Your task to perform on an android device: turn on notifications settings in the gmail app Image 0: 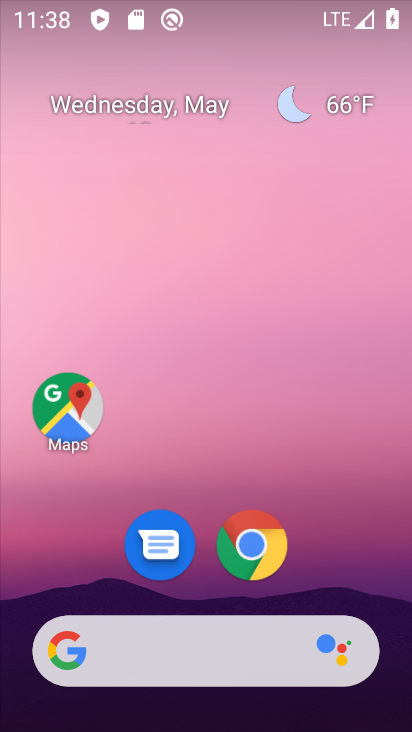
Step 0: drag from (116, 652) to (203, 9)
Your task to perform on an android device: turn on notifications settings in the gmail app Image 1: 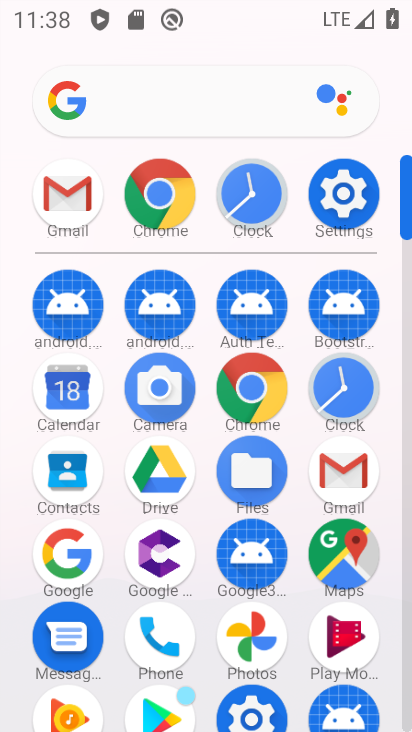
Step 1: click (74, 211)
Your task to perform on an android device: turn on notifications settings in the gmail app Image 2: 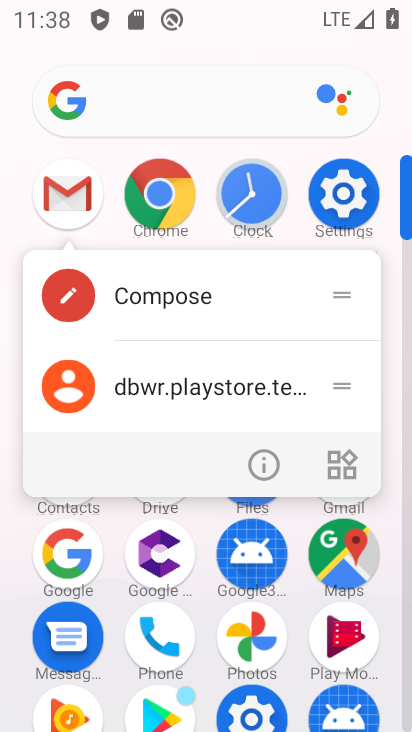
Step 2: click (246, 465)
Your task to perform on an android device: turn on notifications settings in the gmail app Image 3: 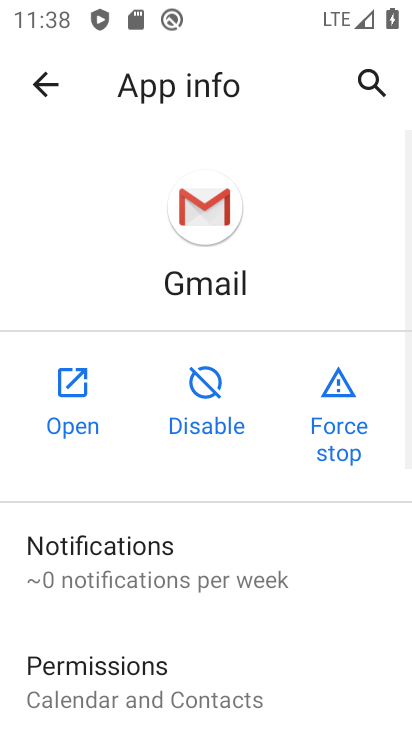
Step 3: click (162, 572)
Your task to perform on an android device: turn on notifications settings in the gmail app Image 4: 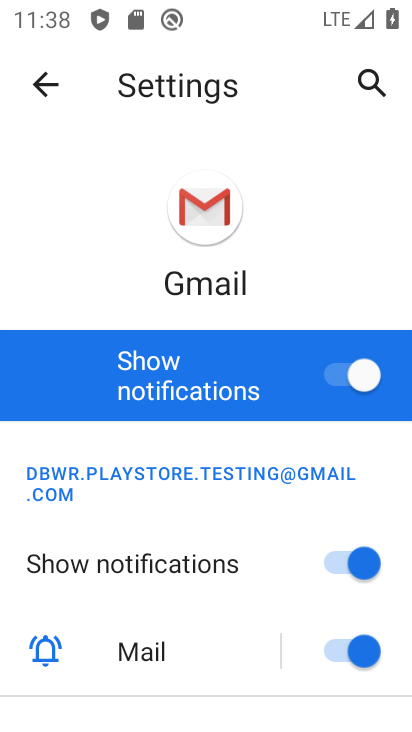
Step 4: task complete